Your task to perform on an android device: open app "Contacts" Image 0: 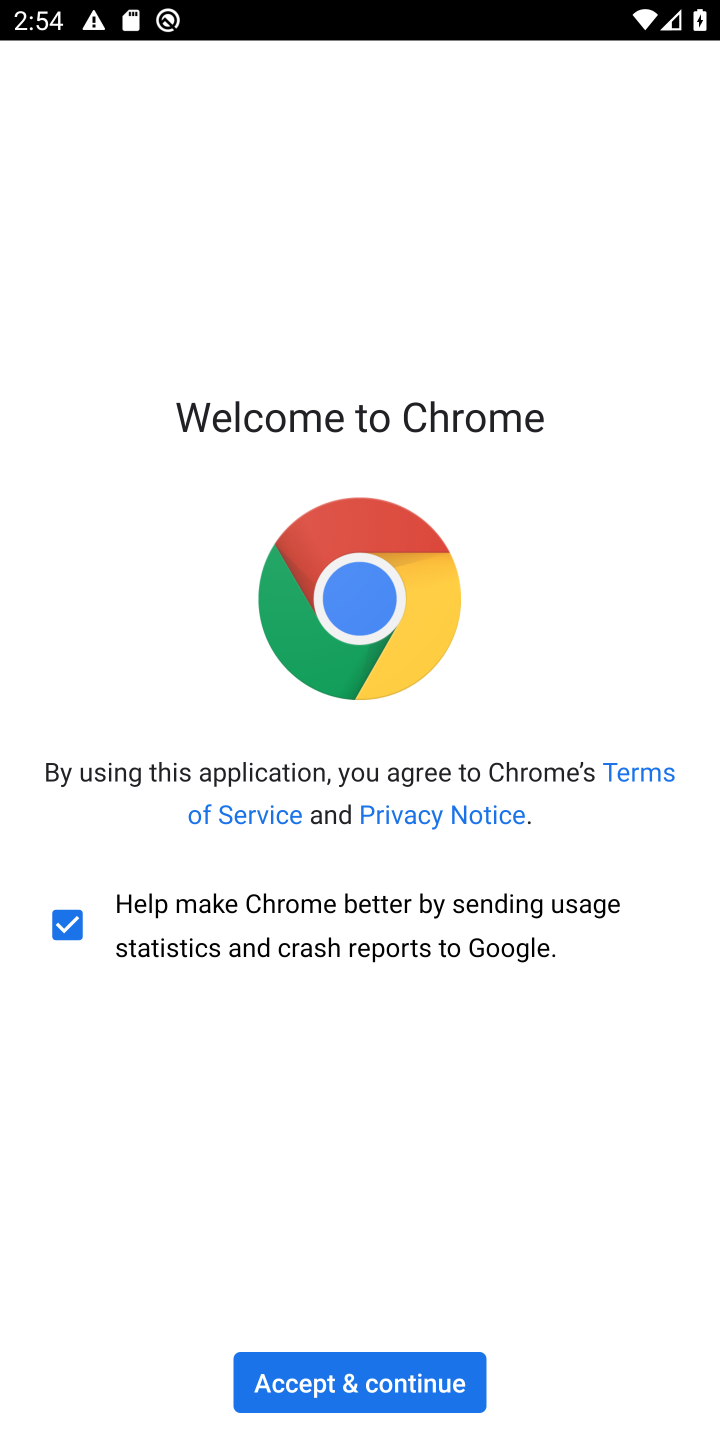
Step 0: press home button
Your task to perform on an android device: open app "Contacts" Image 1: 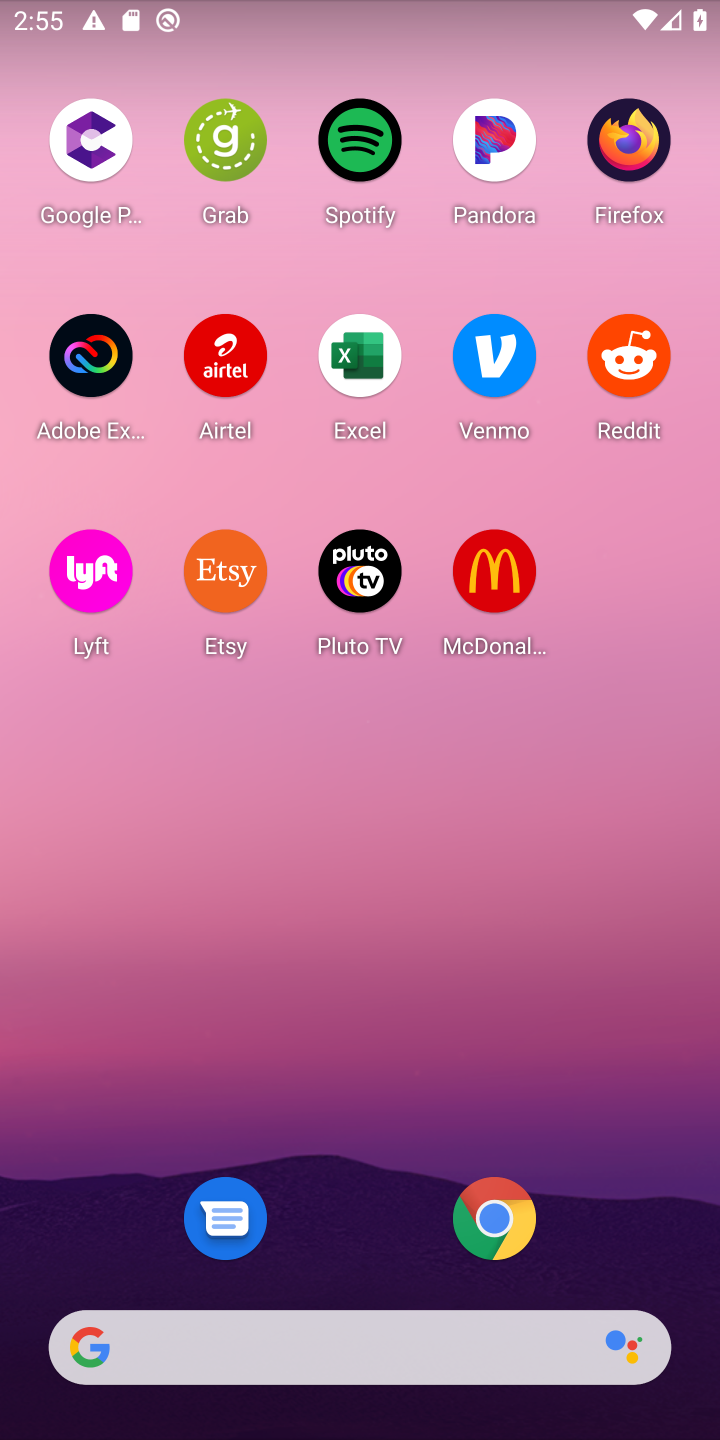
Step 1: drag from (393, 763) to (393, 220)
Your task to perform on an android device: open app "Contacts" Image 2: 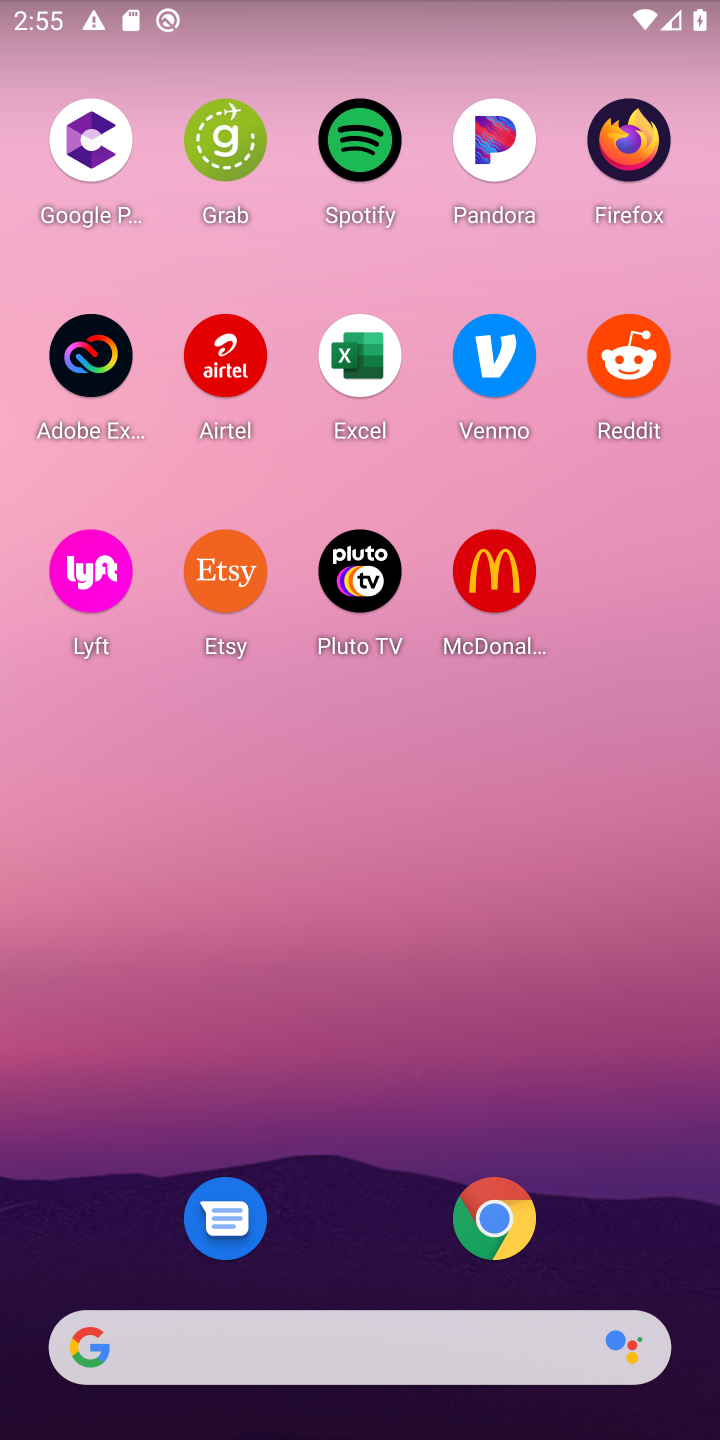
Step 2: drag from (364, 1127) to (397, 301)
Your task to perform on an android device: open app "Contacts" Image 3: 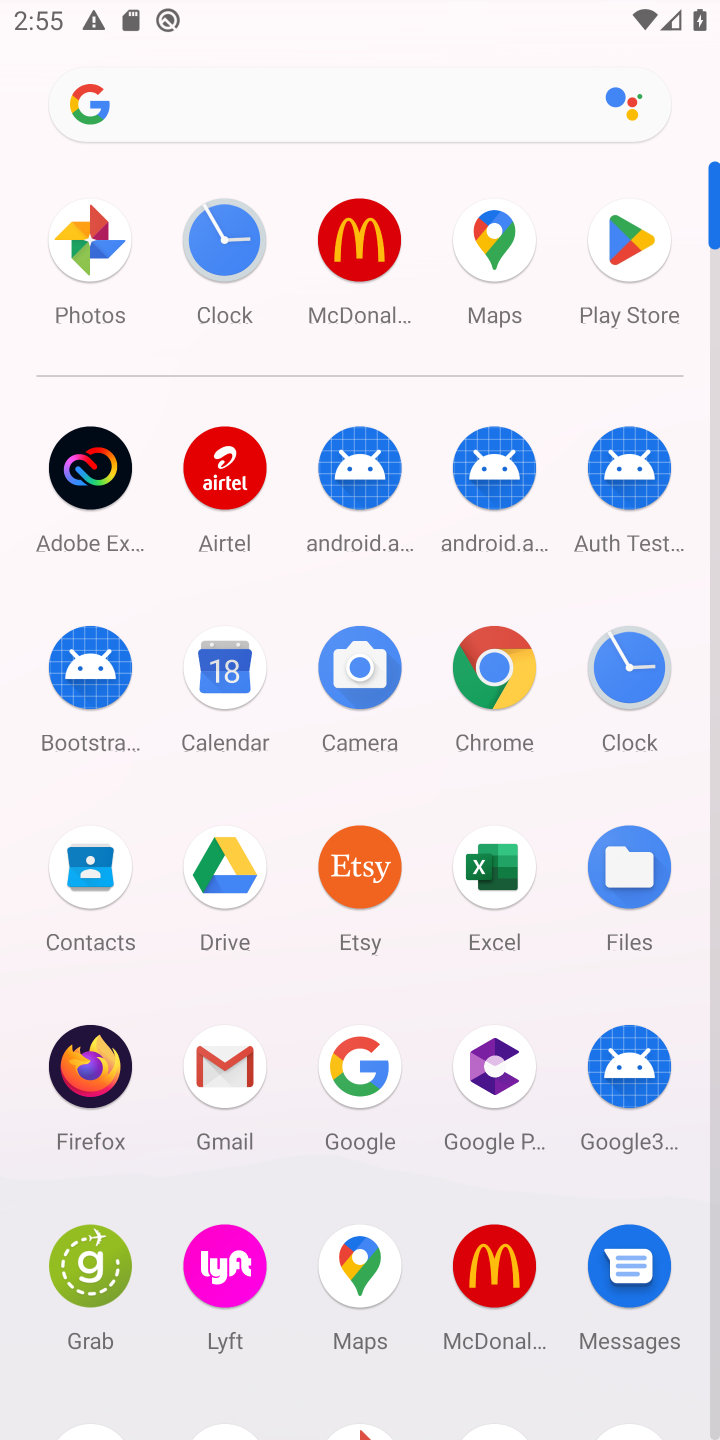
Step 3: click (616, 252)
Your task to perform on an android device: open app "Contacts" Image 4: 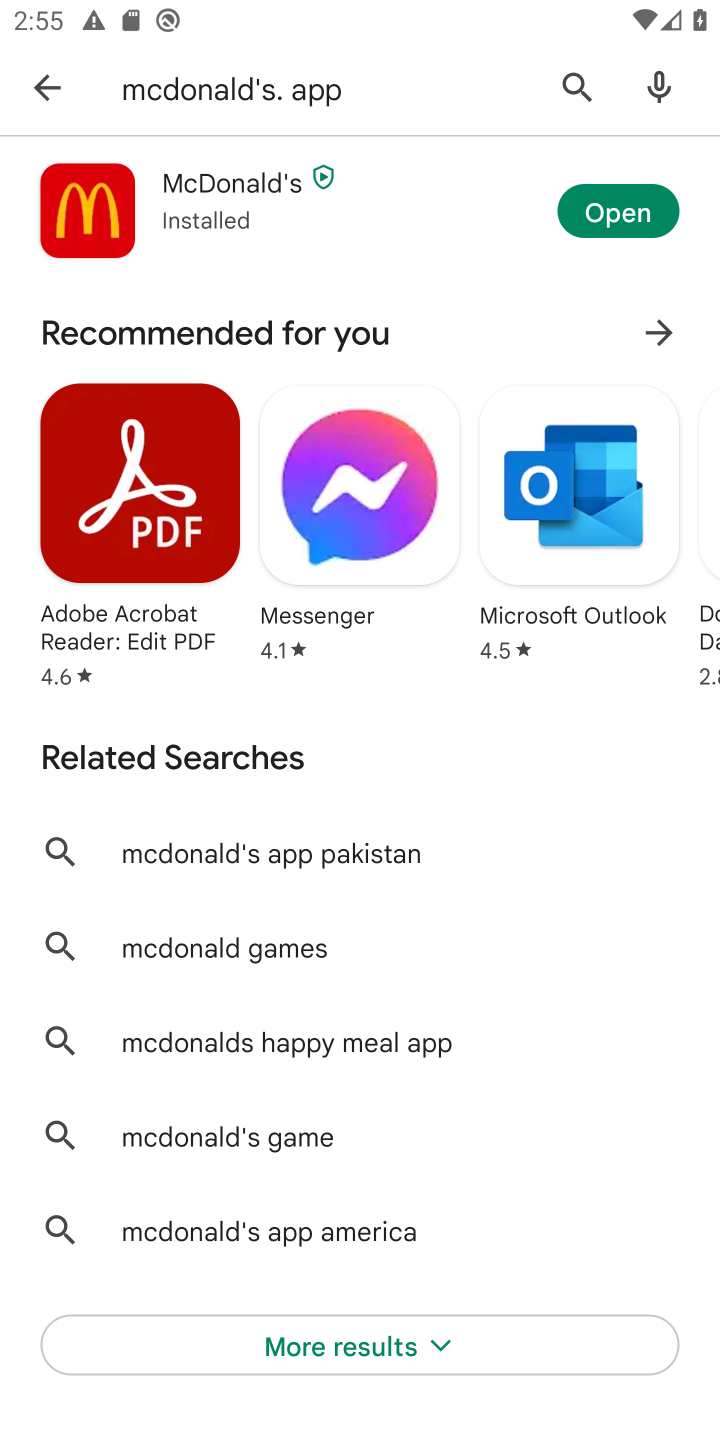
Step 4: click (579, 94)
Your task to perform on an android device: open app "Contacts" Image 5: 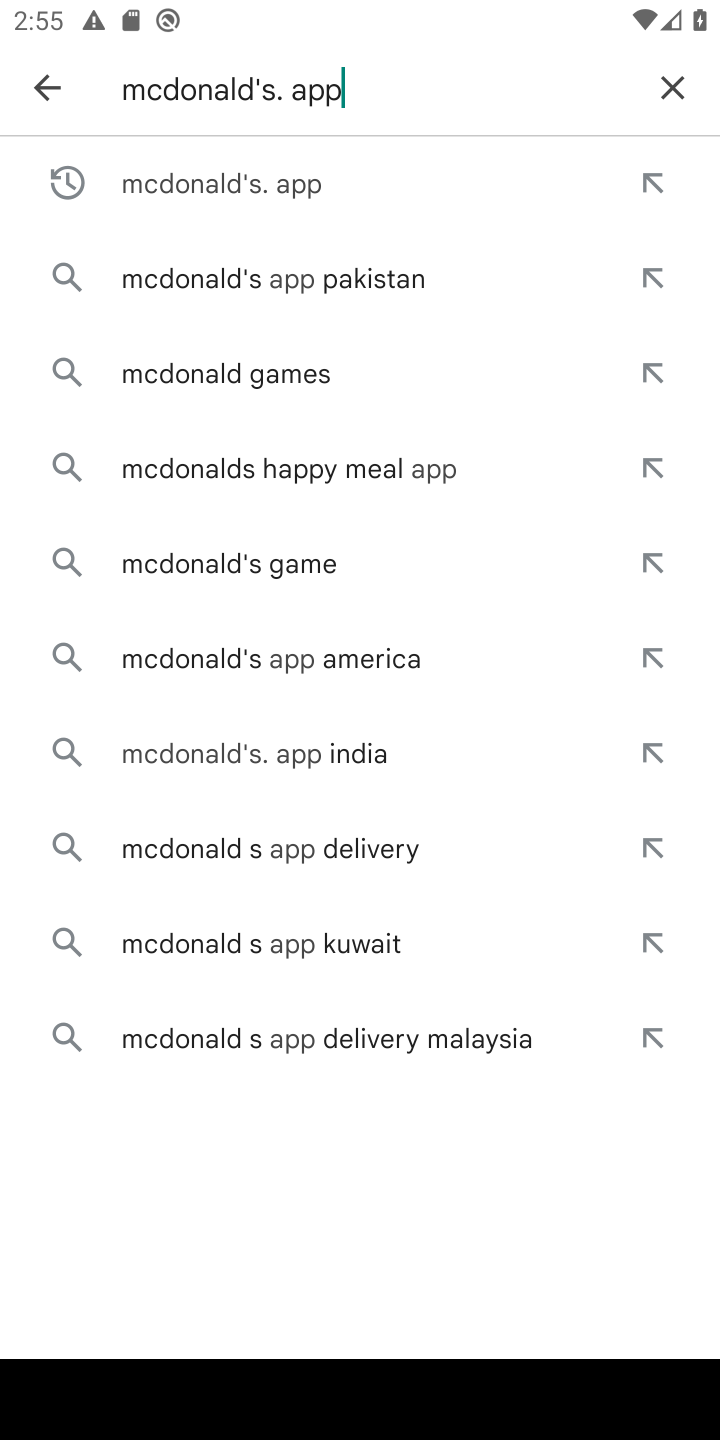
Step 5: click (688, 95)
Your task to perform on an android device: open app "Contacts" Image 6: 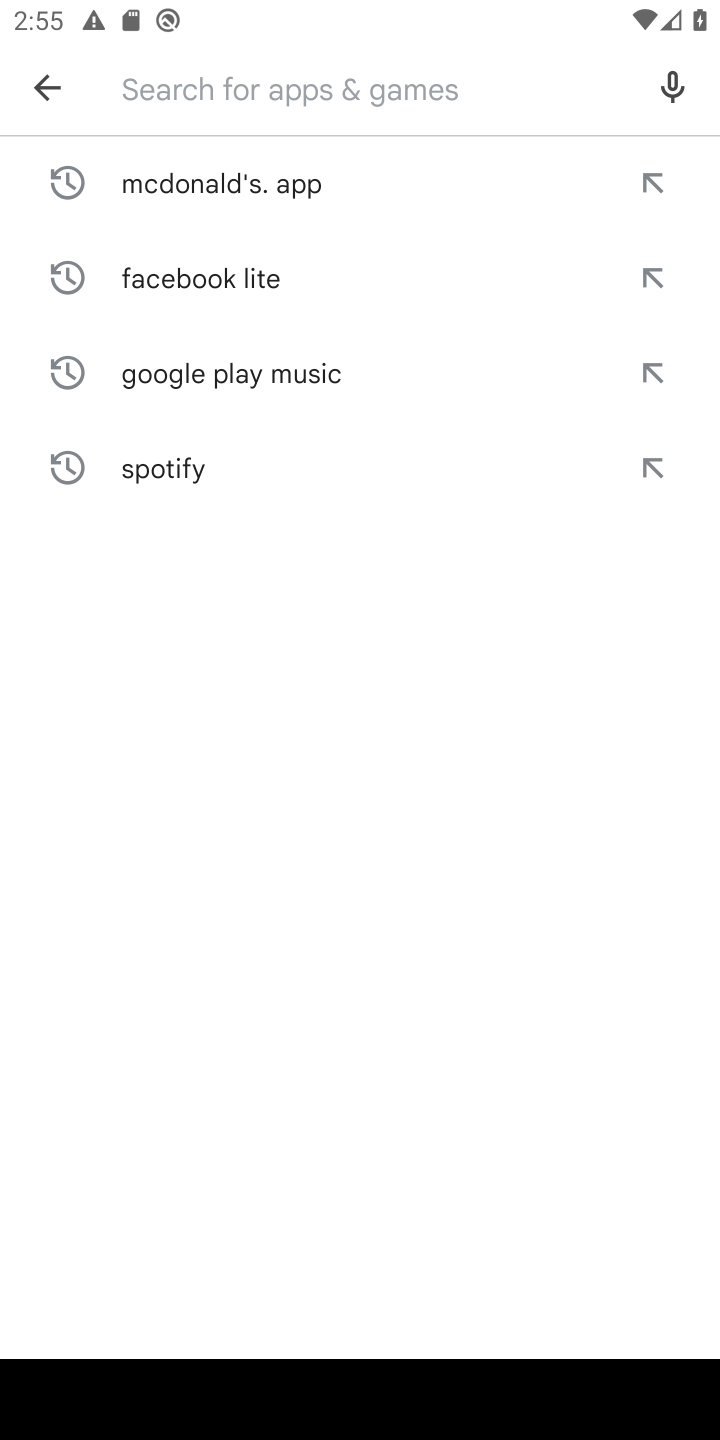
Step 6: type "Contacts"
Your task to perform on an android device: open app "Contacts" Image 7: 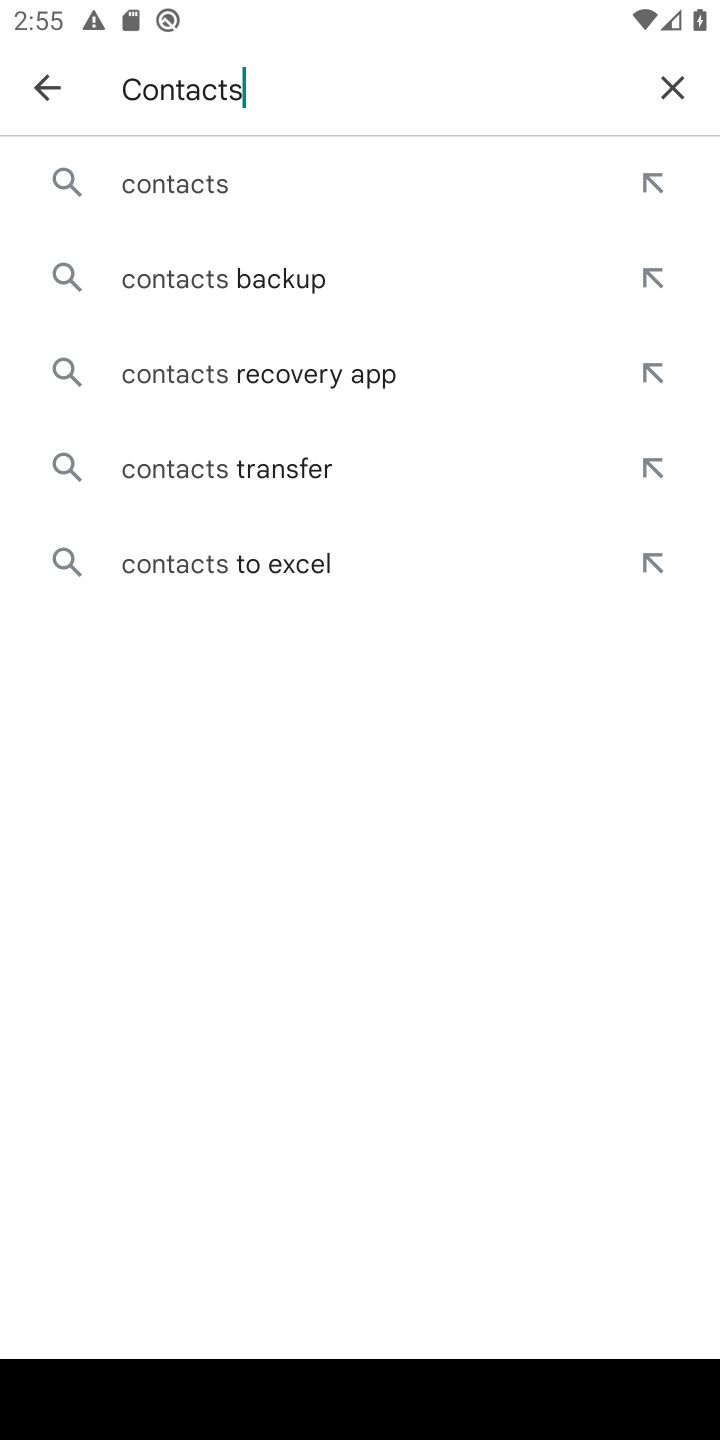
Step 7: click (229, 184)
Your task to perform on an android device: open app "Contacts" Image 8: 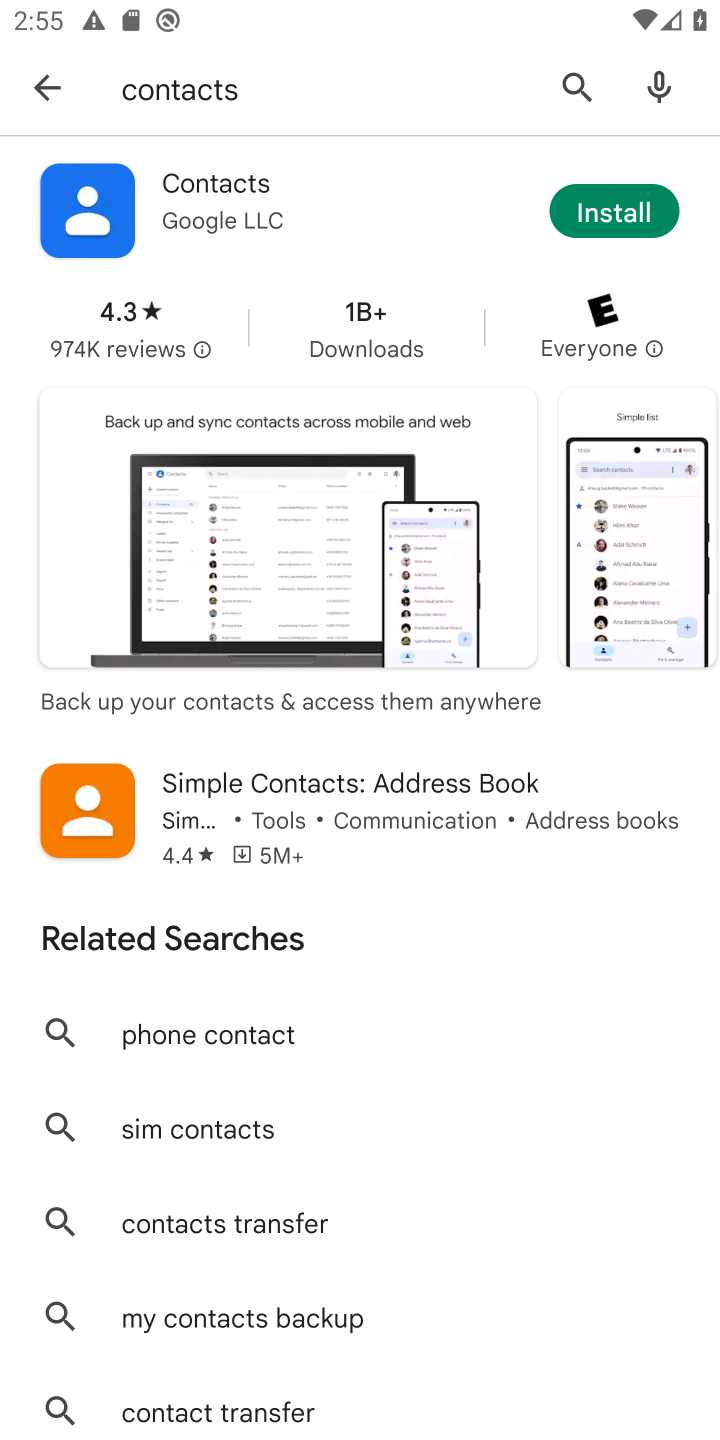
Step 8: task complete